Your task to perform on an android device: empty trash in the gmail app Image 0: 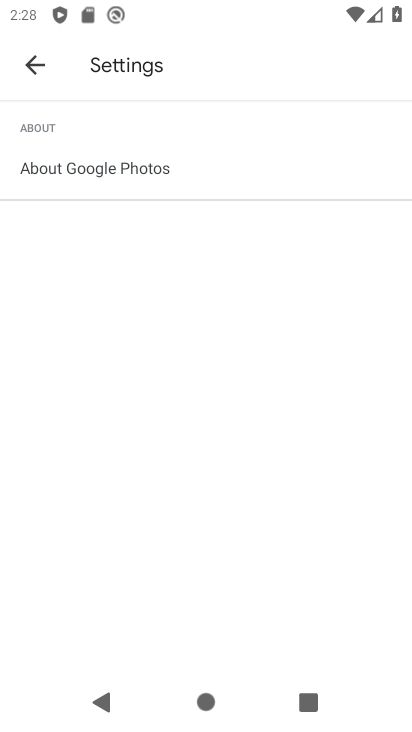
Step 0: press home button
Your task to perform on an android device: empty trash in the gmail app Image 1: 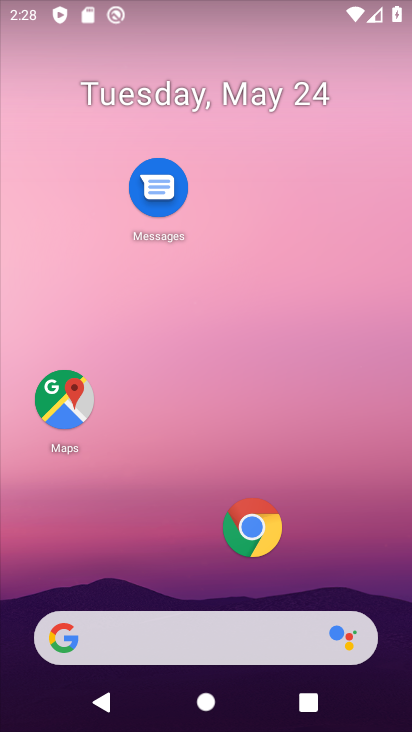
Step 1: drag from (156, 547) to (212, 110)
Your task to perform on an android device: empty trash in the gmail app Image 2: 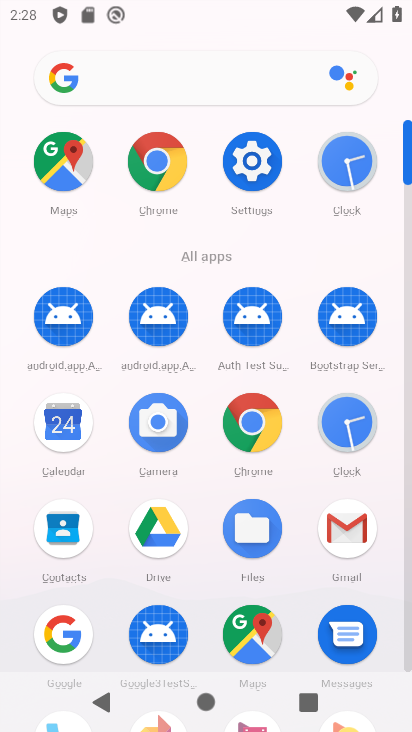
Step 2: click (337, 530)
Your task to perform on an android device: empty trash in the gmail app Image 3: 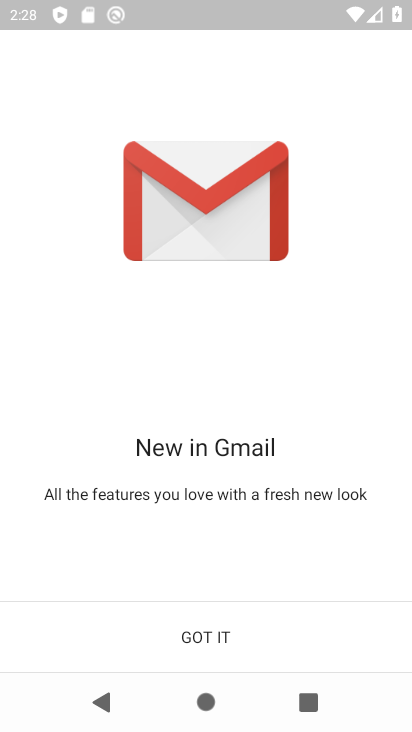
Step 3: click (221, 620)
Your task to perform on an android device: empty trash in the gmail app Image 4: 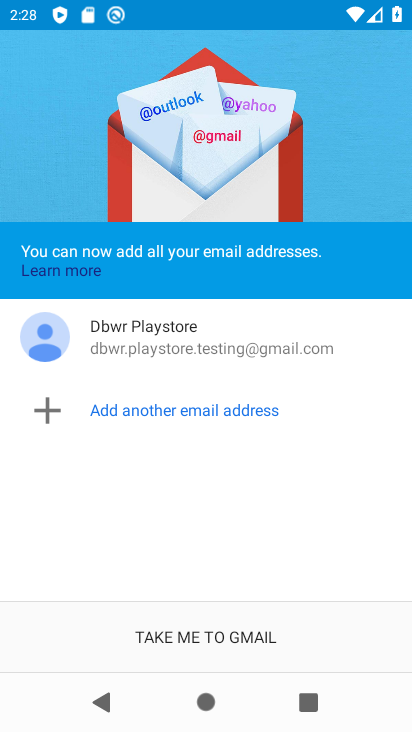
Step 4: click (221, 631)
Your task to perform on an android device: empty trash in the gmail app Image 5: 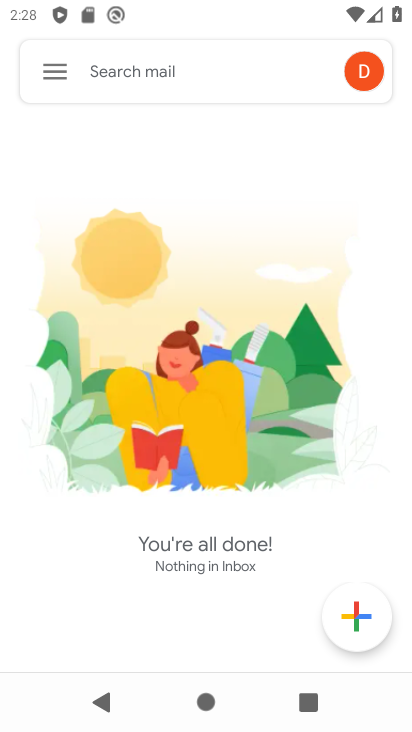
Step 5: click (61, 67)
Your task to perform on an android device: empty trash in the gmail app Image 6: 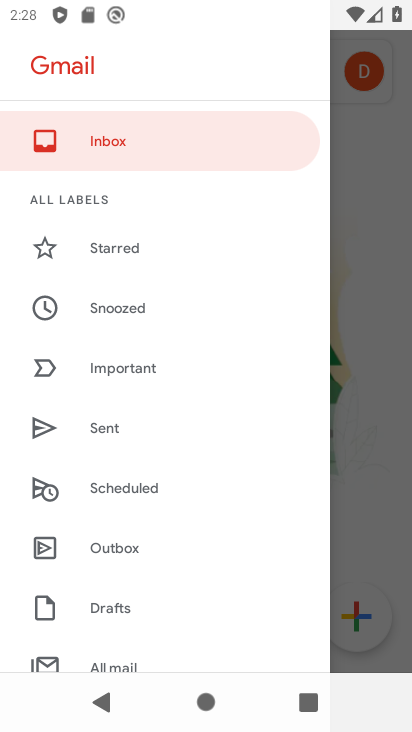
Step 6: drag from (175, 544) to (222, 250)
Your task to perform on an android device: empty trash in the gmail app Image 7: 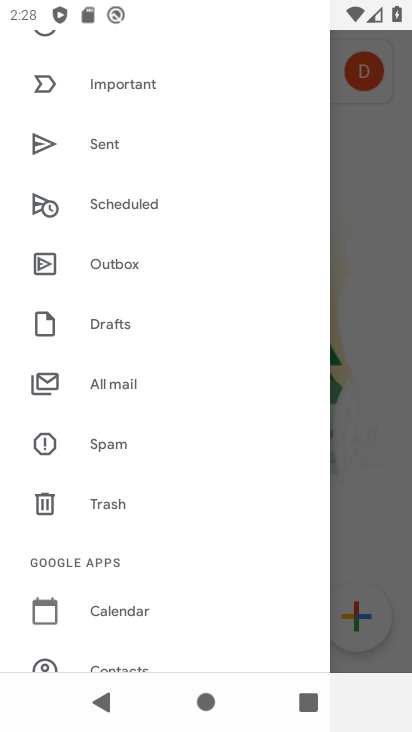
Step 7: click (103, 503)
Your task to perform on an android device: empty trash in the gmail app Image 8: 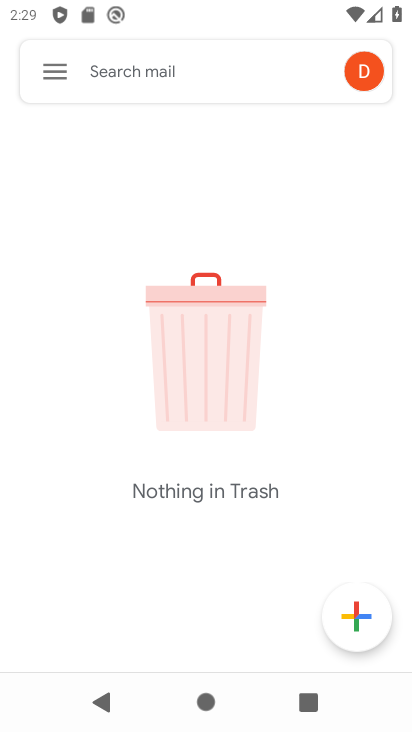
Step 8: task complete